Your task to perform on an android device: Find coffee shops on Maps Image 0: 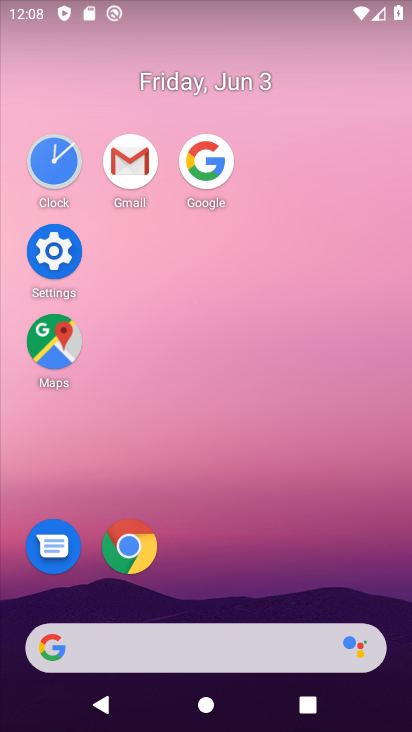
Step 0: click (47, 321)
Your task to perform on an android device: Find coffee shops on Maps Image 1: 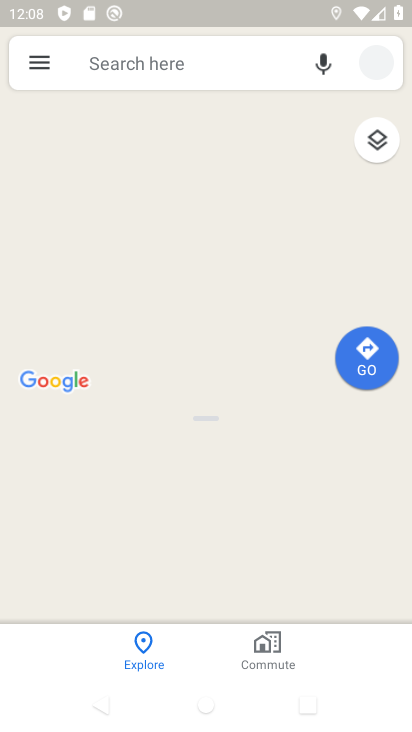
Step 1: click (229, 61)
Your task to perform on an android device: Find coffee shops on Maps Image 2: 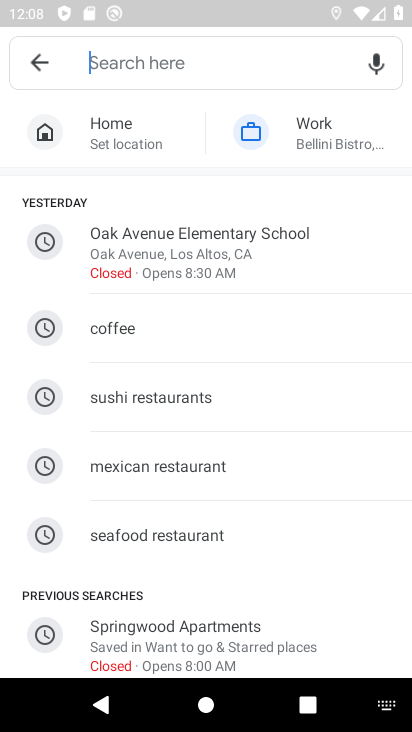
Step 2: drag from (304, 559) to (227, 213)
Your task to perform on an android device: Find coffee shops on Maps Image 3: 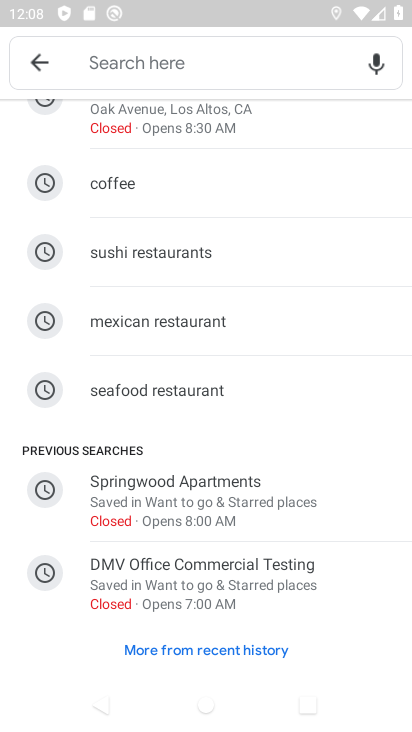
Step 3: click (220, 201)
Your task to perform on an android device: Find coffee shops on Maps Image 4: 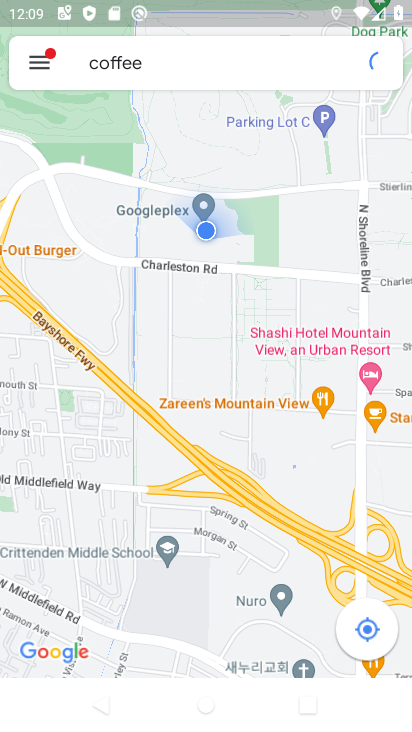
Step 4: task complete